Your task to perform on an android device: See recent photos Image 0: 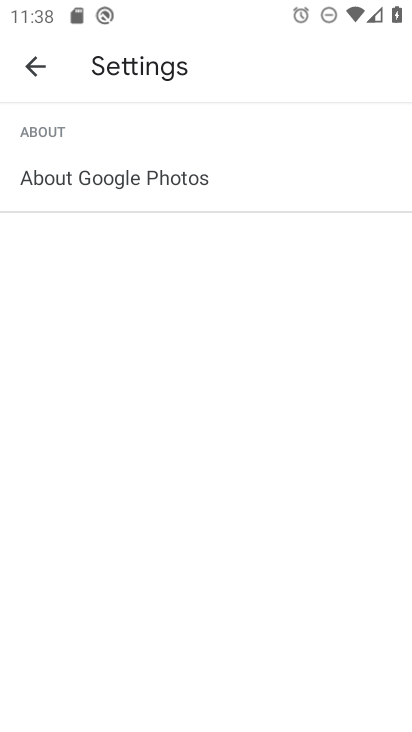
Step 0: press home button
Your task to perform on an android device: See recent photos Image 1: 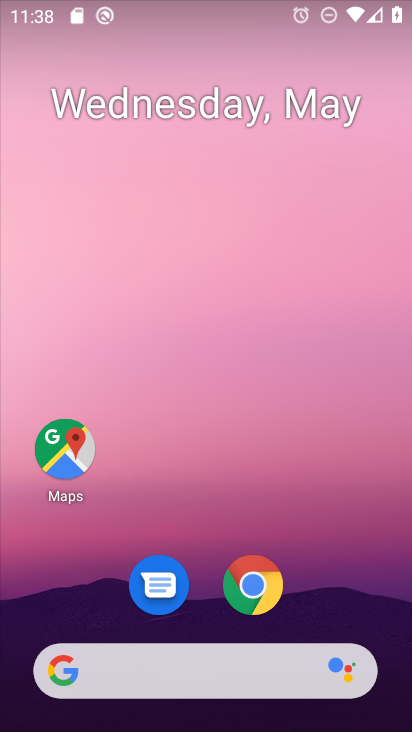
Step 1: drag from (205, 447) to (236, 41)
Your task to perform on an android device: See recent photos Image 2: 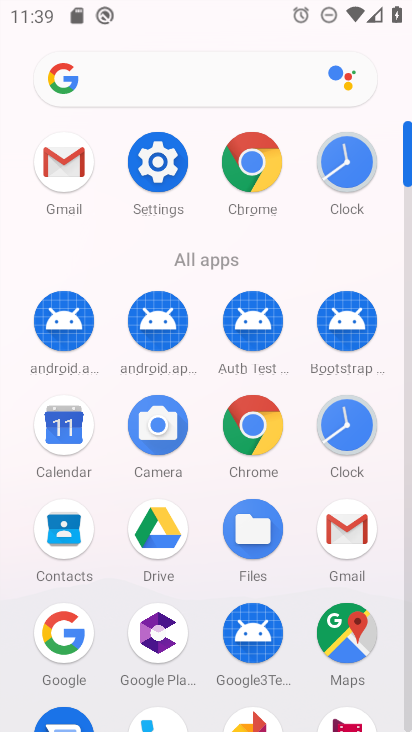
Step 2: drag from (194, 494) to (189, 188)
Your task to perform on an android device: See recent photos Image 3: 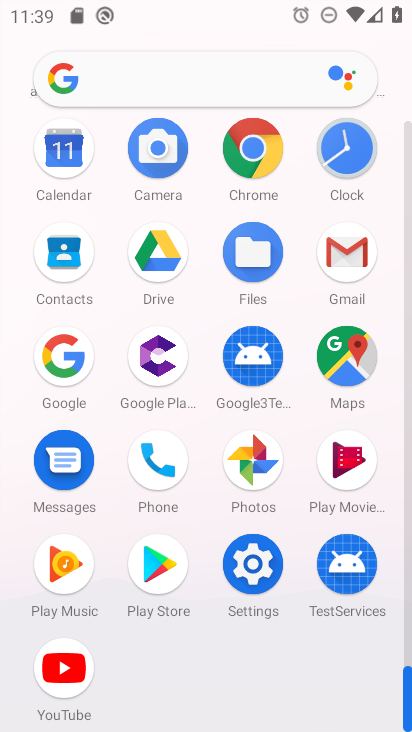
Step 3: click (247, 445)
Your task to perform on an android device: See recent photos Image 4: 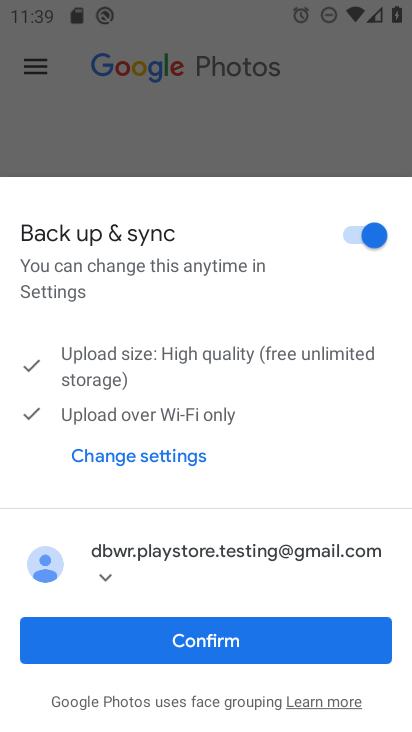
Step 4: click (292, 641)
Your task to perform on an android device: See recent photos Image 5: 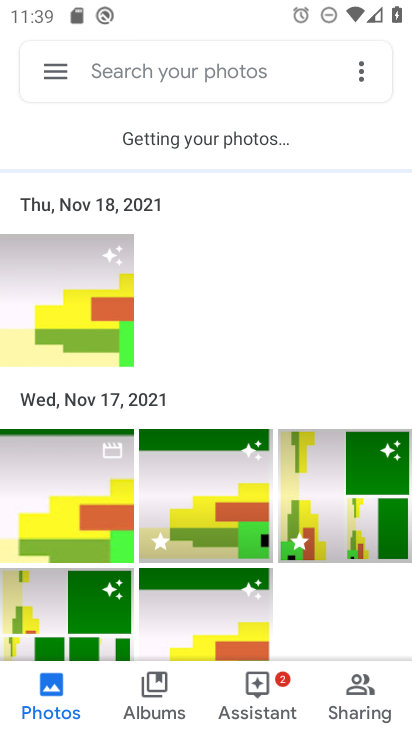
Step 5: task complete